Your task to perform on an android device: set an alarm Image 0: 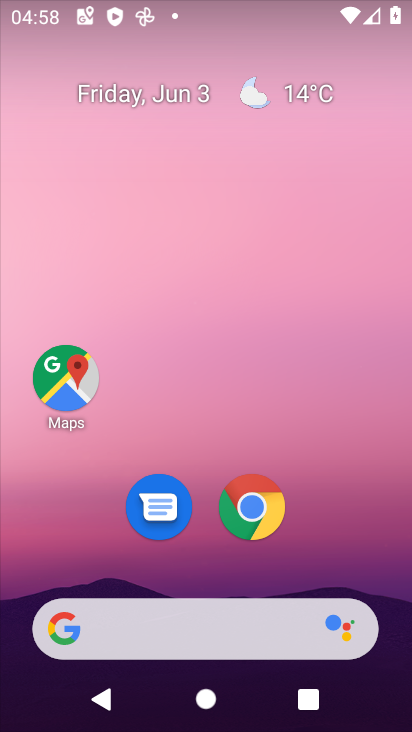
Step 0: drag from (324, 555) to (310, 162)
Your task to perform on an android device: set an alarm Image 1: 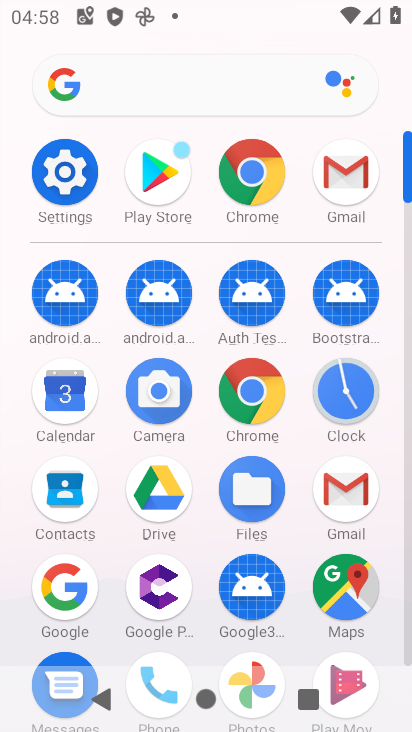
Step 1: click (349, 399)
Your task to perform on an android device: set an alarm Image 2: 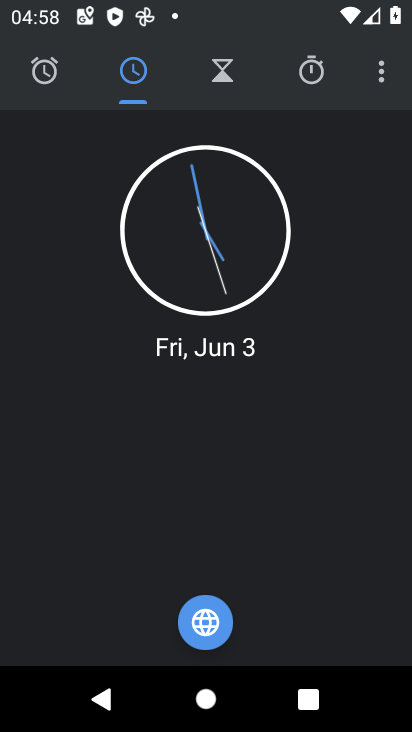
Step 2: click (51, 74)
Your task to perform on an android device: set an alarm Image 3: 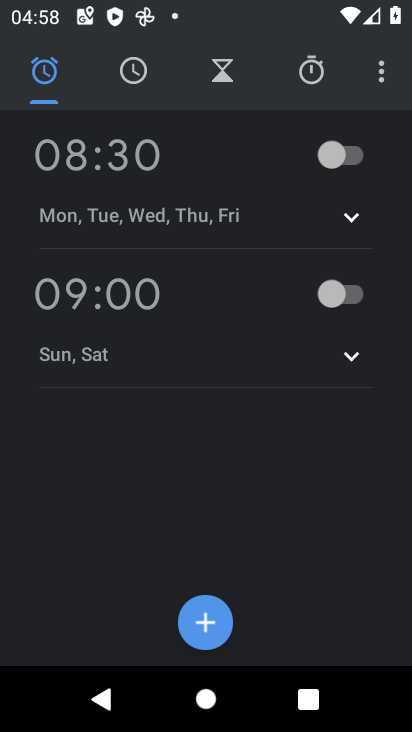
Step 3: click (347, 159)
Your task to perform on an android device: set an alarm Image 4: 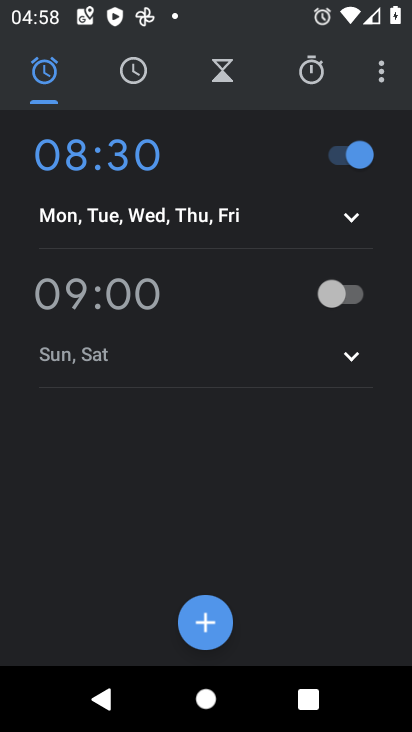
Step 4: task complete